Your task to perform on an android device: Go to battery settings Image 0: 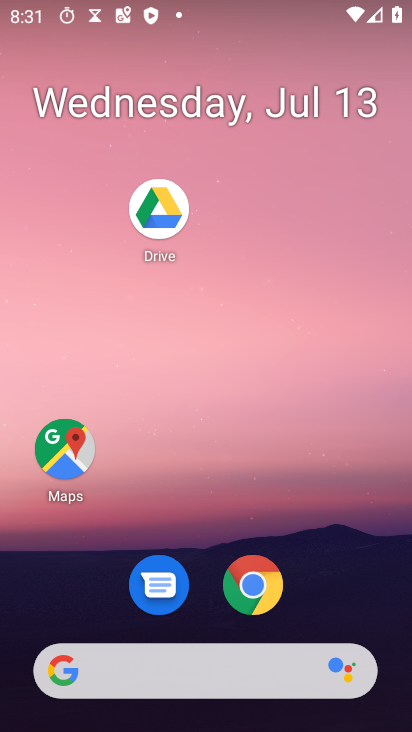
Step 0: drag from (179, 663) to (356, 102)
Your task to perform on an android device: Go to battery settings Image 1: 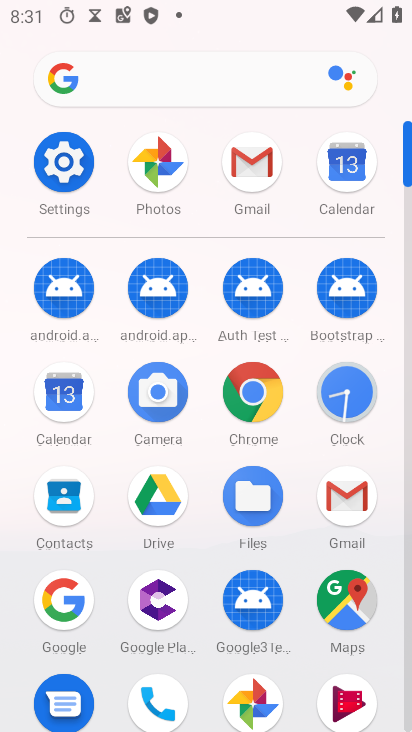
Step 1: click (65, 149)
Your task to perform on an android device: Go to battery settings Image 2: 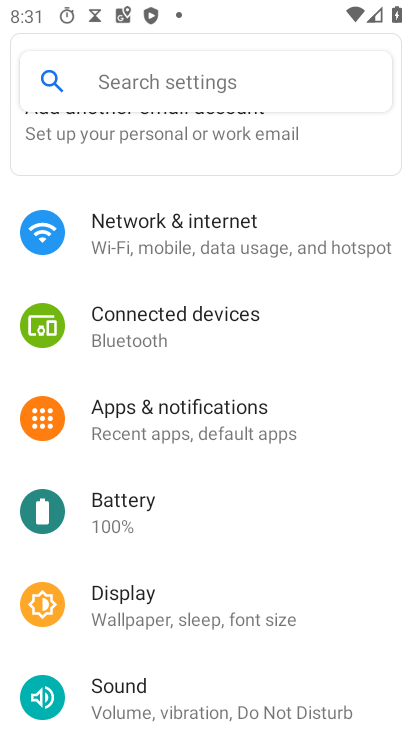
Step 2: click (134, 522)
Your task to perform on an android device: Go to battery settings Image 3: 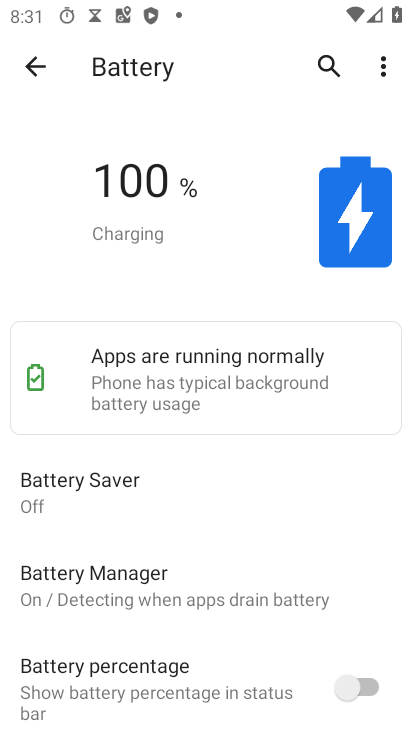
Step 3: task complete